Your task to perform on an android device: Check the weather Image 0: 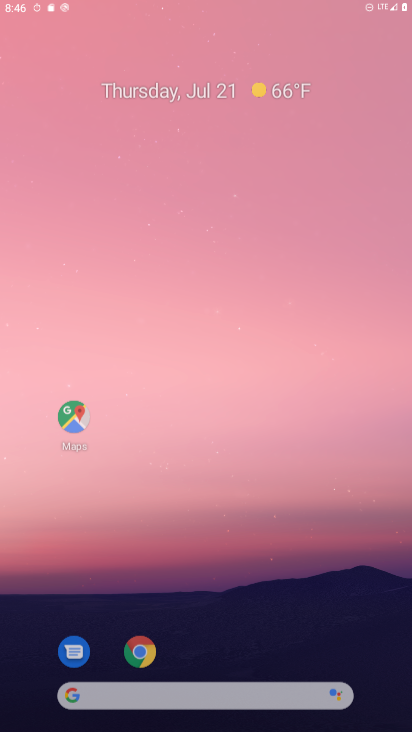
Step 0: drag from (240, 163) to (257, 118)
Your task to perform on an android device: Check the weather Image 1: 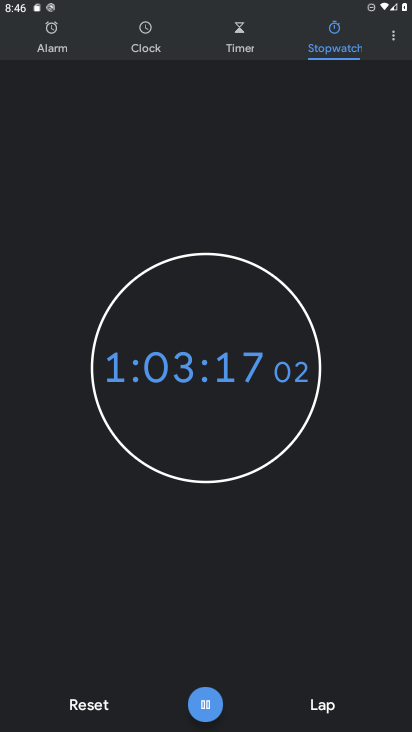
Step 1: drag from (244, 576) to (378, 245)
Your task to perform on an android device: Check the weather Image 2: 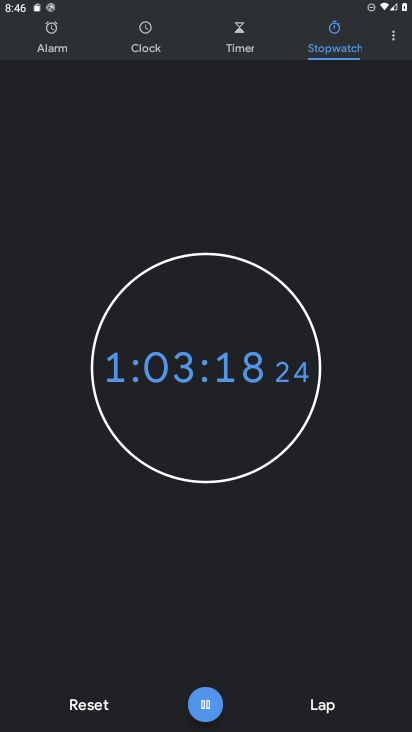
Step 2: press home button
Your task to perform on an android device: Check the weather Image 3: 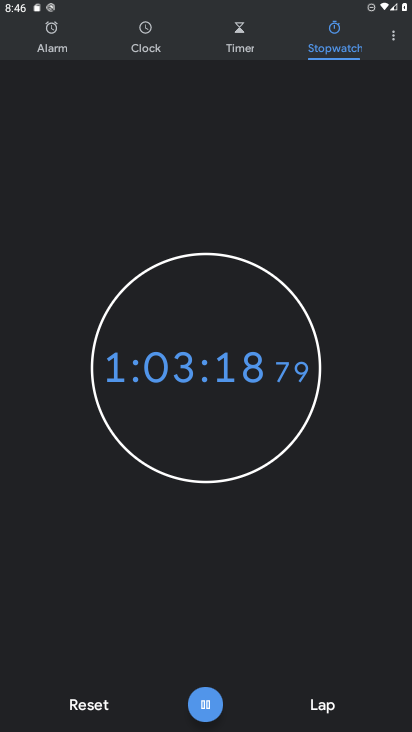
Step 3: drag from (185, 572) to (399, 15)
Your task to perform on an android device: Check the weather Image 4: 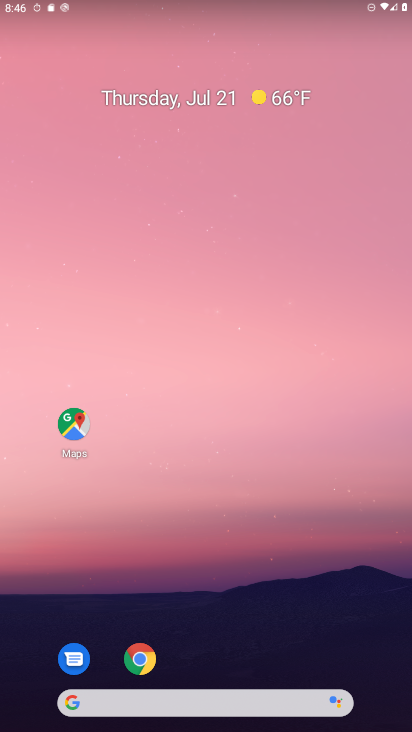
Step 4: drag from (210, 582) to (334, 65)
Your task to perform on an android device: Check the weather Image 5: 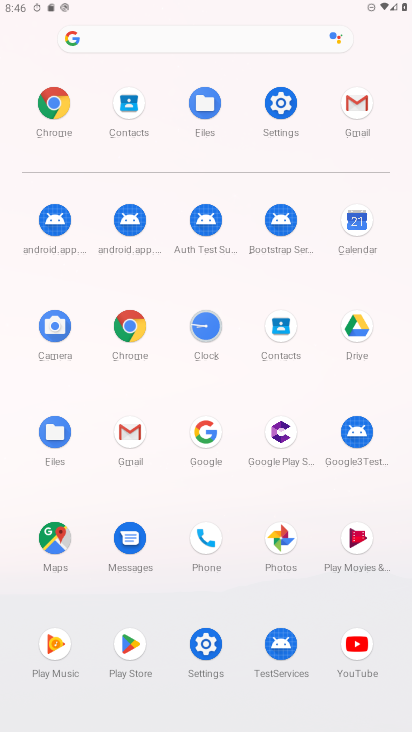
Step 5: click (142, 34)
Your task to perform on an android device: Check the weather Image 6: 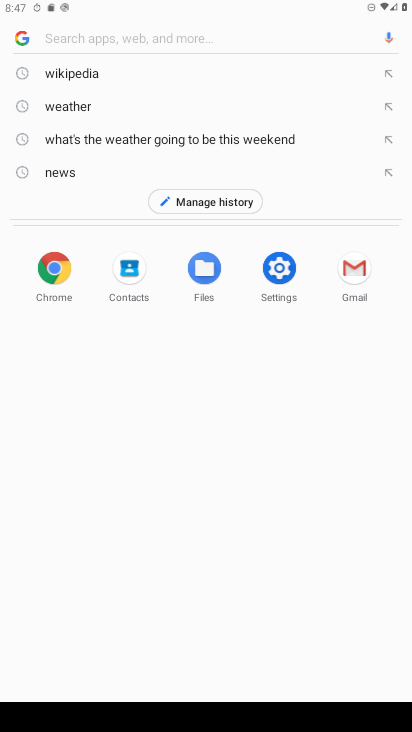
Step 6: type "Check the weather"
Your task to perform on an android device: Check the weather Image 7: 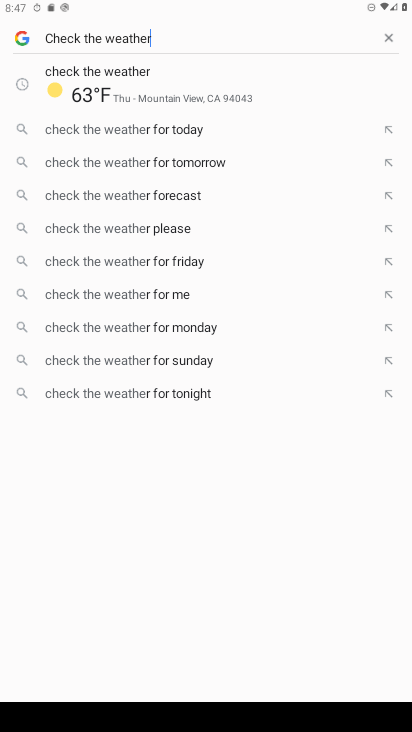
Step 7: type ""
Your task to perform on an android device: Check the weather Image 8: 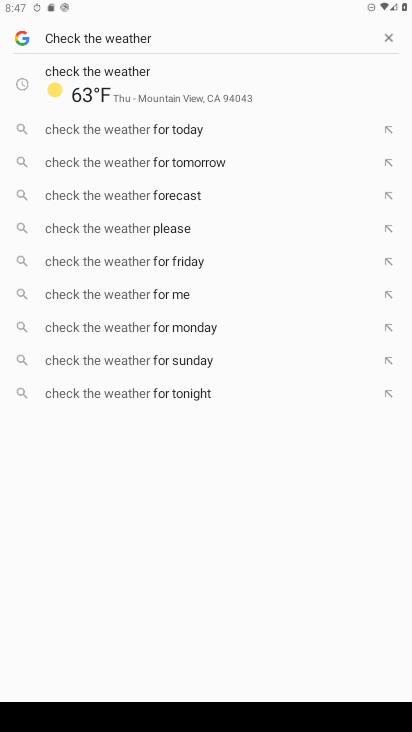
Step 8: click (122, 76)
Your task to perform on an android device: Check the weather Image 9: 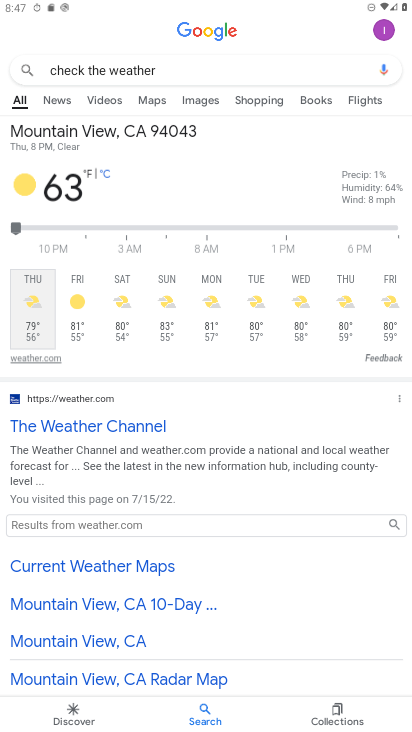
Step 9: task complete